Your task to perform on an android device: Open internet settings Image 0: 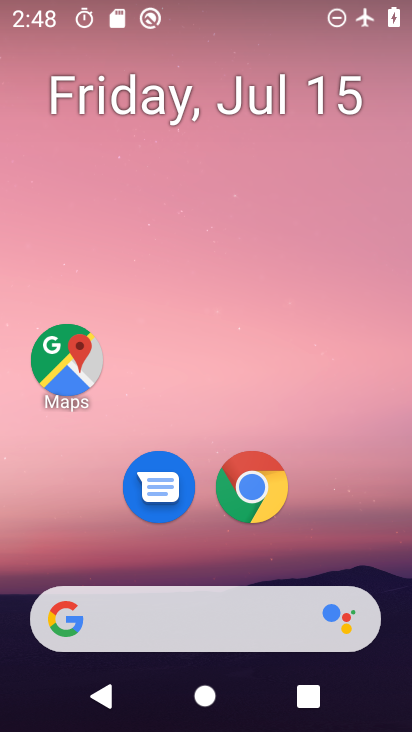
Step 0: press home button
Your task to perform on an android device: Open internet settings Image 1: 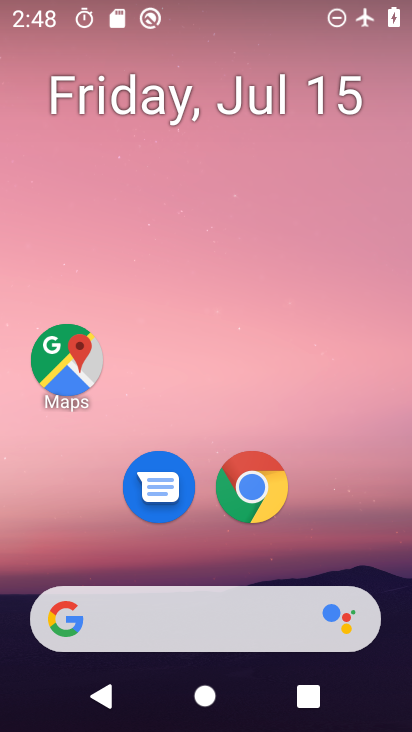
Step 1: drag from (223, 560) to (225, 90)
Your task to perform on an android device: Open internet settings Image 2: 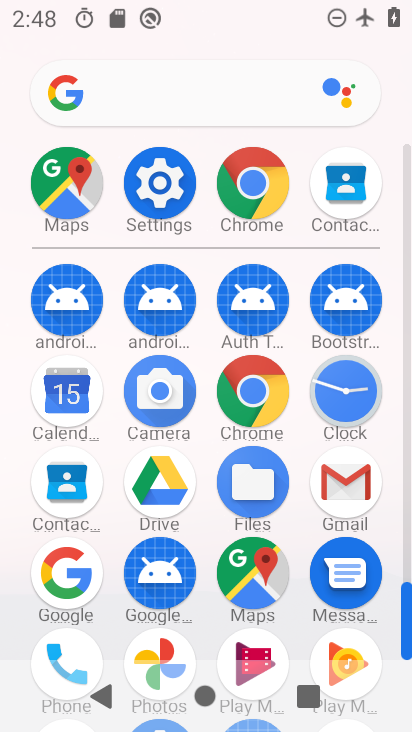
Step 2: click (175, 204)
Your task to perform on an android device: Open internet settings Image 3: 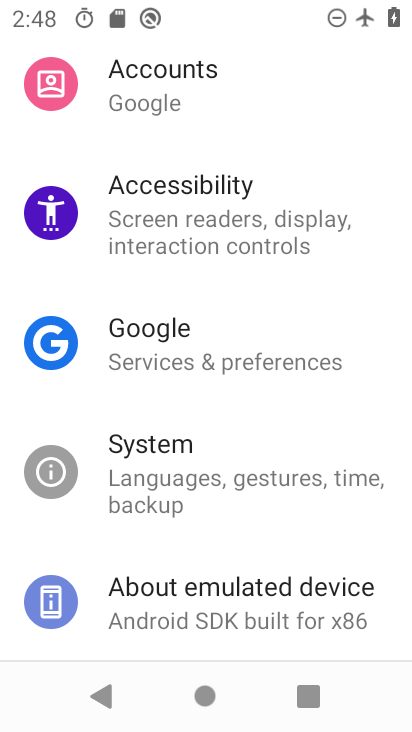
Step 3: drag from (132, 250) to (333, 718)
Your task to perform on an android device: Open internet settings Image 4: 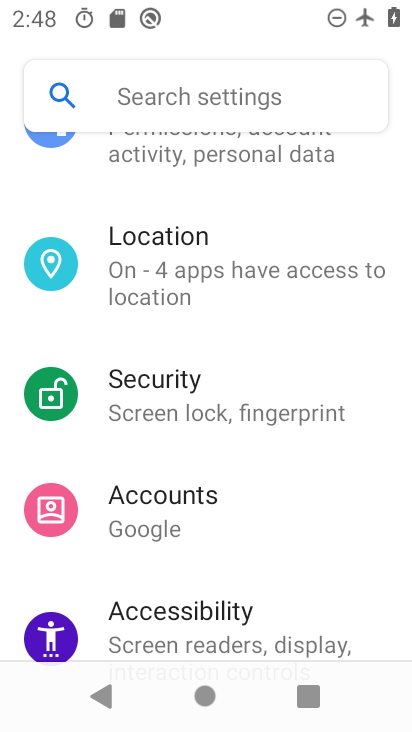
Step 4: drag from (266, 353) to (188, 682)
Your task to perform on an android device: Open internet settings Image 5: 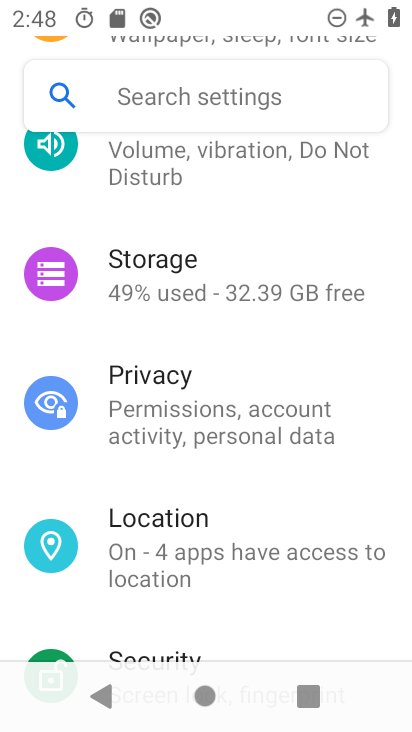
Step 5: drag from (187, 278) to (133, 721)
Your task to perform on an android device: Open internet settings Image 6: 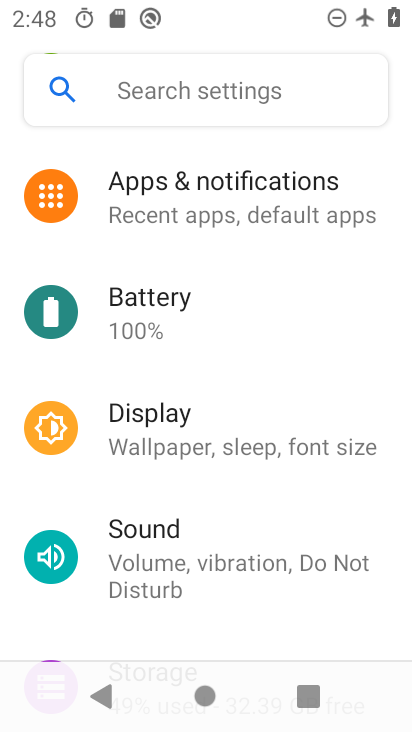
Step 6: drag from (156, 471) to (153, 580)
Your task to perform on an android device: Open internet settings Image 7: 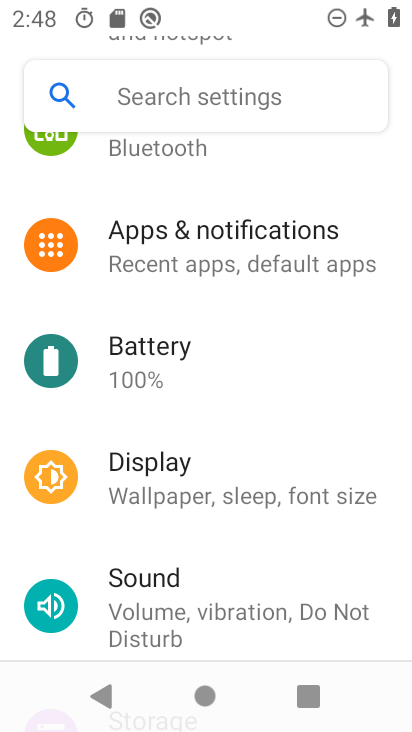
Step 7: drag from (190, 299) to (195, 638)
Your task to perform on an android device: Open internet settings Image 8: 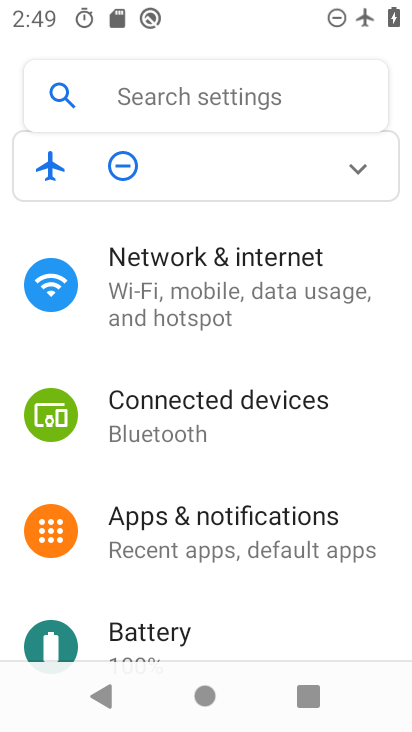
Step 8: drag from (195, 310) to (182, 579)
Your task to perform on an android device: Open internet settings Image 9: 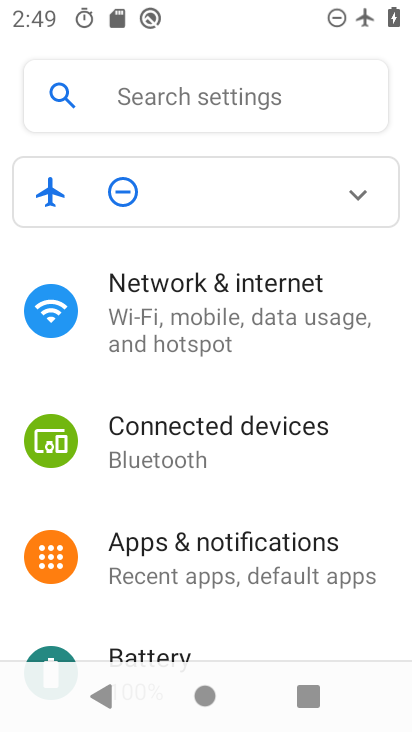
Step 9: click (231, 328)
Your task to perform on an android device: Open internet settings Image 10: 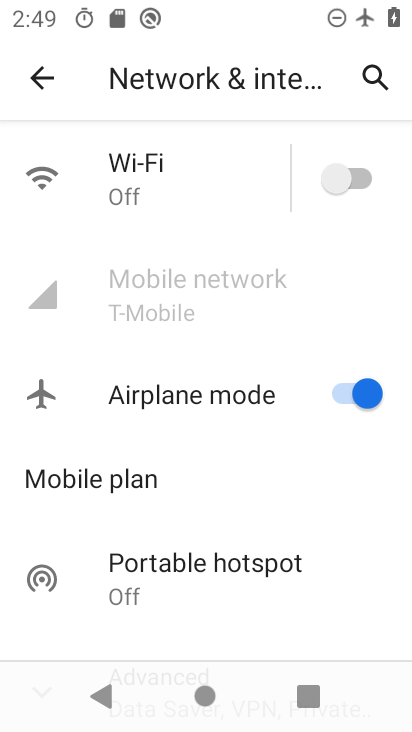
Step 10: click (215, 300)
Your task to perform on an android device: Open internet settings Image 11: 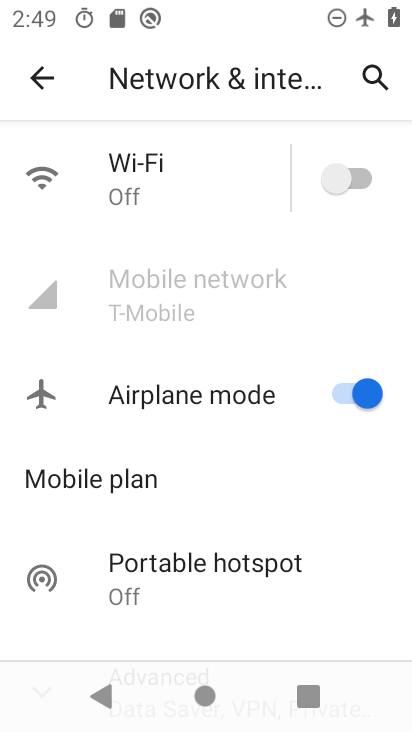
Step 11: click (184, 309)
Your task to perform on an android device: Open internet settings Image 12: 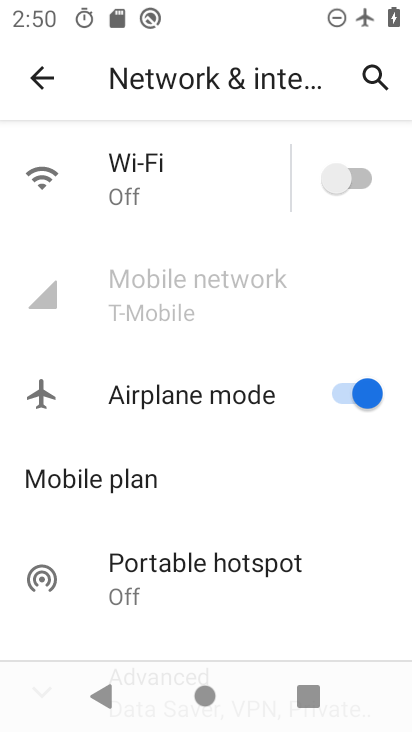
Step 12: task complete